Your task to perform on an android device: delete location history Image 0: 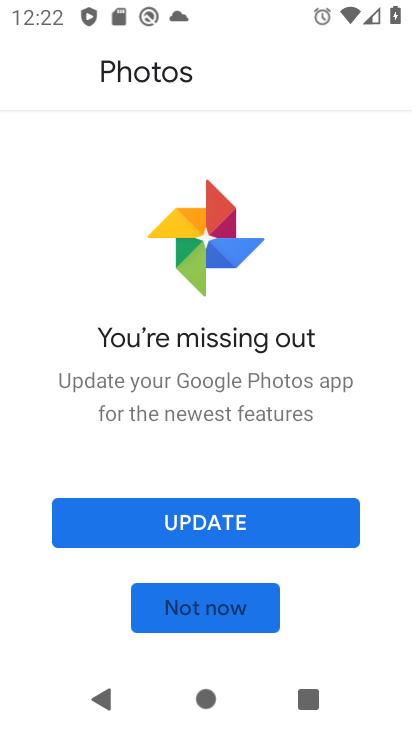
Step 0: press home button
Your task to perform on an android device: delete location history Image 1: 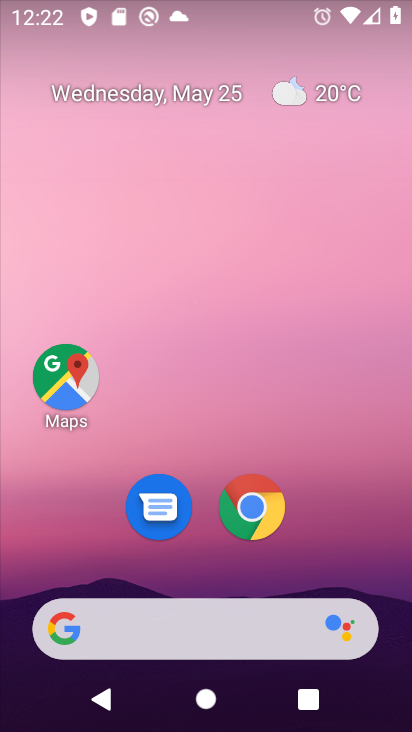
Step 1: drag from (351, 566) to (349, 184)
Your task to perform on an android device: delete location history Image 2: 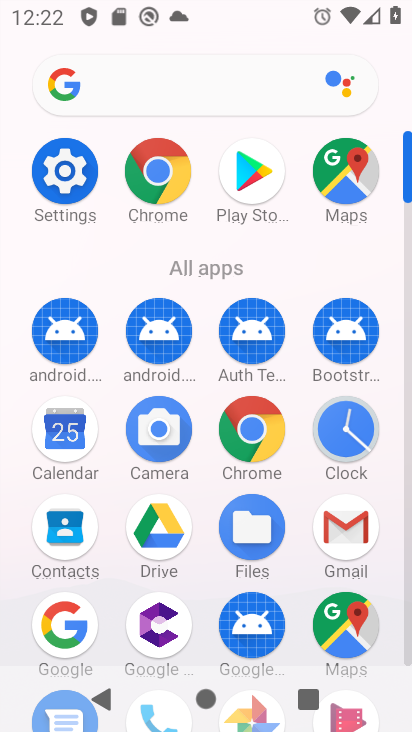
Step 2: click (61, 178)
Your task to perform on an android device: delete location history Image 3: 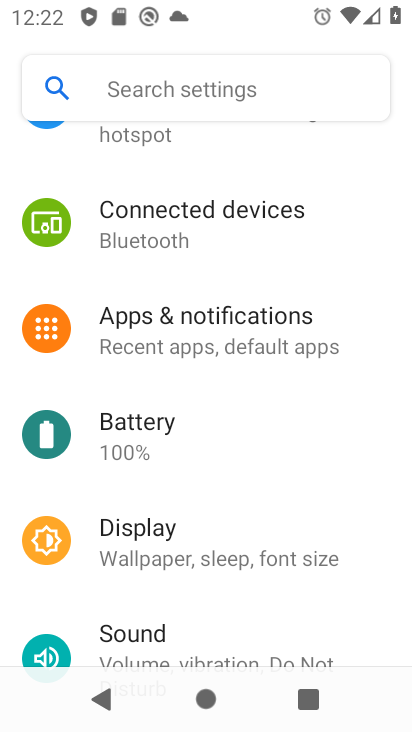
Step 3: drag from (254, 601) to (241, 272)
Your task to perform on an android device: delete location history Image 4: 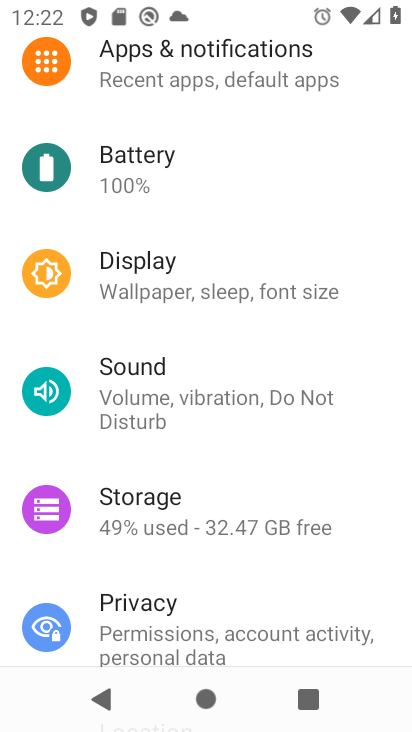
Step 4: drag from (247, 534) to (285, 153)
Your task to perform on an android device: delete location history Image 5: 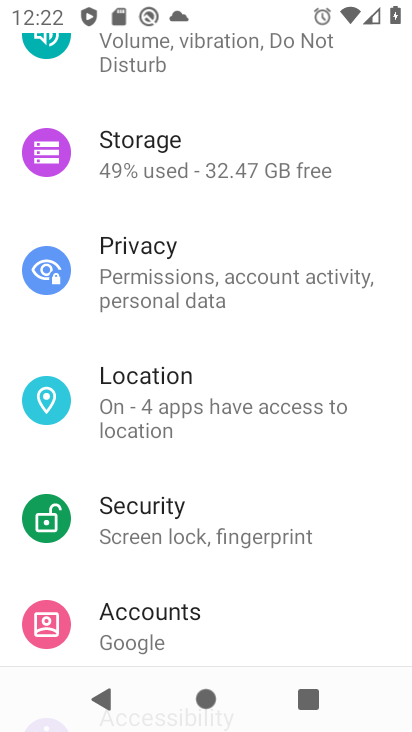
Step 5: click (240, 410)
Your task to perform on an android device: delete location history Image 6: 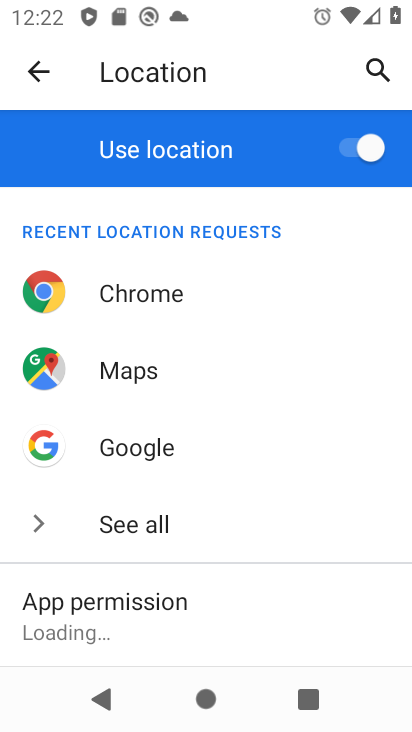
Step 6: drag from (279, 624) to (283, 428)
Your task to perform on an android device: delete location history Image 7: 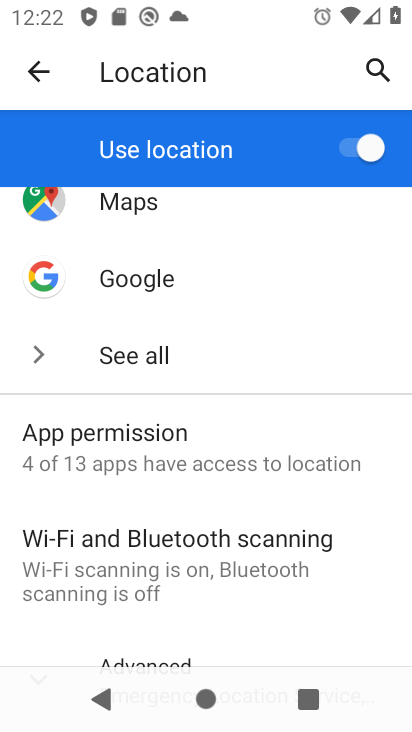
Step 7: drag from (255, 623) to (260, 402)
Your task to perform on an android device: delete location history Image 8: 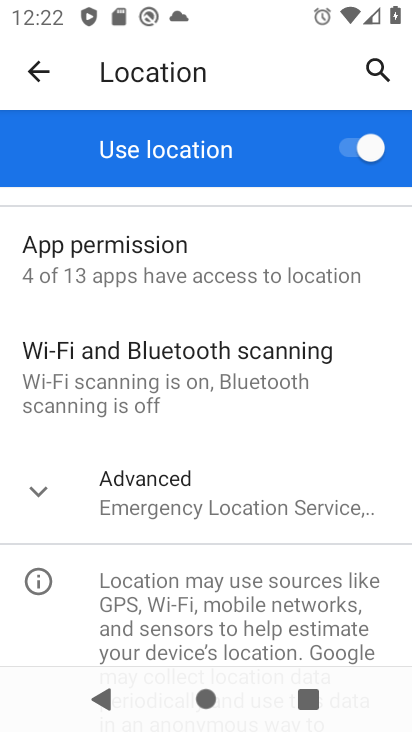
Step 8: drag from (265, 611) to (279, 368)
Your task to perform on an android device: delete location history Image 9: 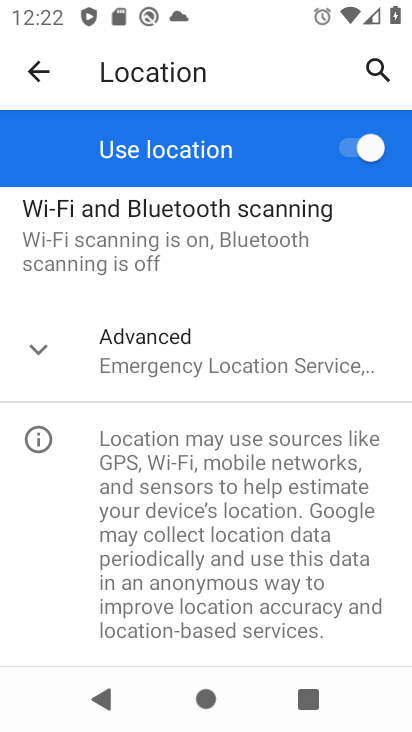
Step 9: click (168, 362)
Your task to perform on an android device: delete location history Image 10: 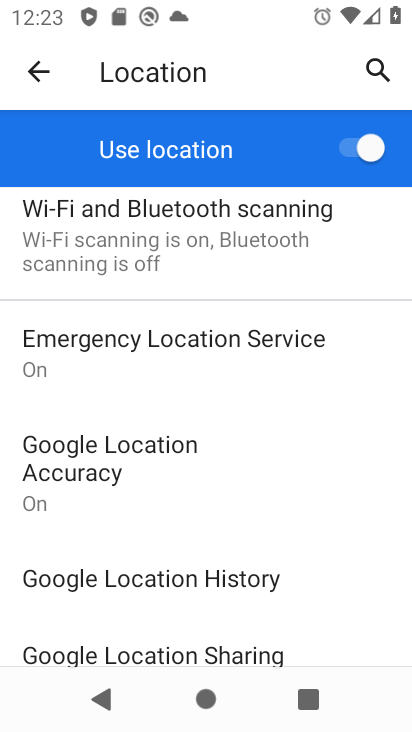
Step 10: click (174, 587)
Your task to perform on an android device: delete location history Image 11: 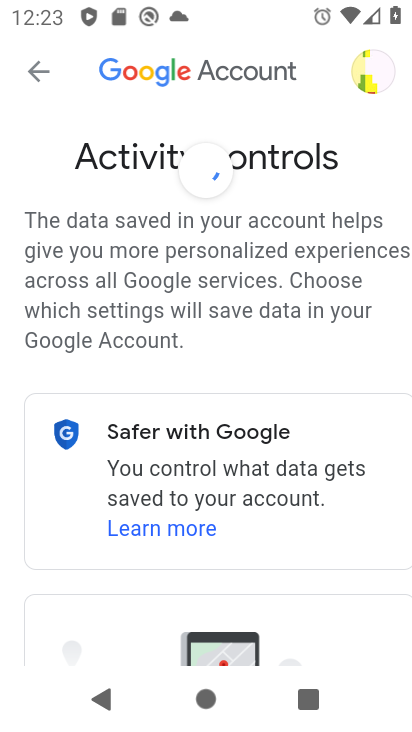
Step 11: drag from (334, 607) to (313, 193)
Your task to perform on an android device: delete location history Image 12: 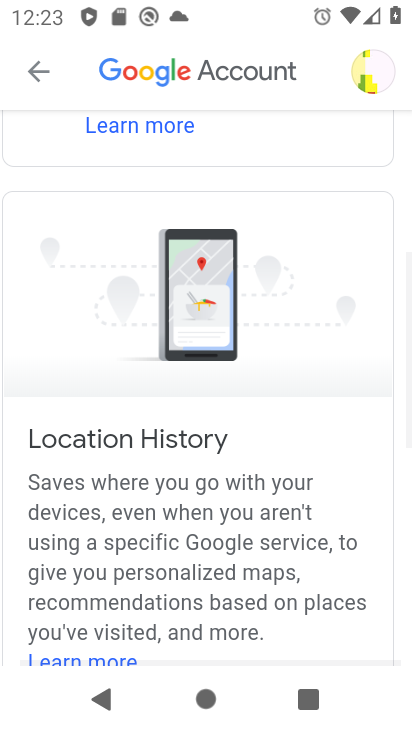
Step 12: drag from (297, 609) to (301, 212)
Your task to perform on an android device: delete location history Image 13: 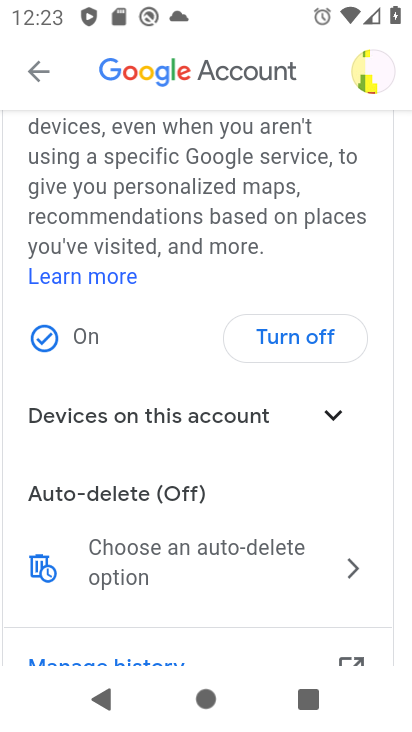
Step 13: drag from (242, 612) to (215, 243)
Your task to perform on an android device: delete location history Image 14: 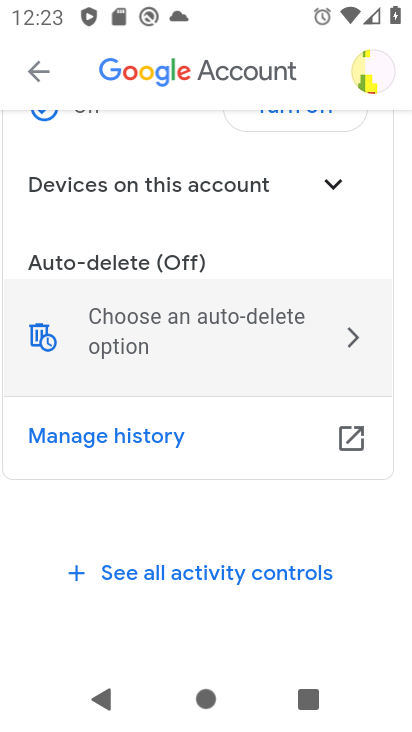
Step 14: click (125, 432)
Your task to perform on an android device: delete location history Image 15: 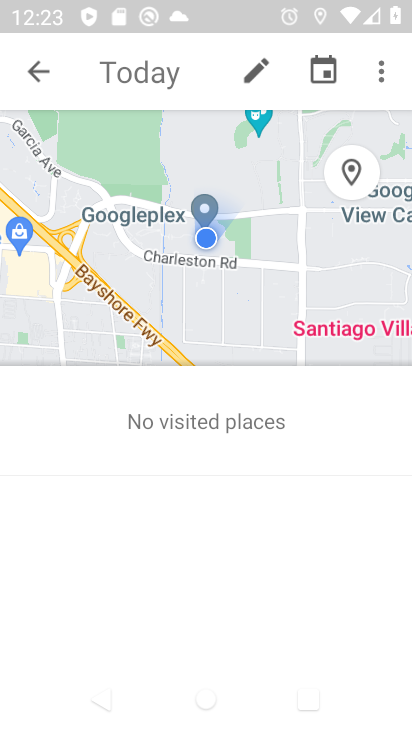
Step 15: click (382, 74)
Your task to perform on an android device: delete location history Image 16: 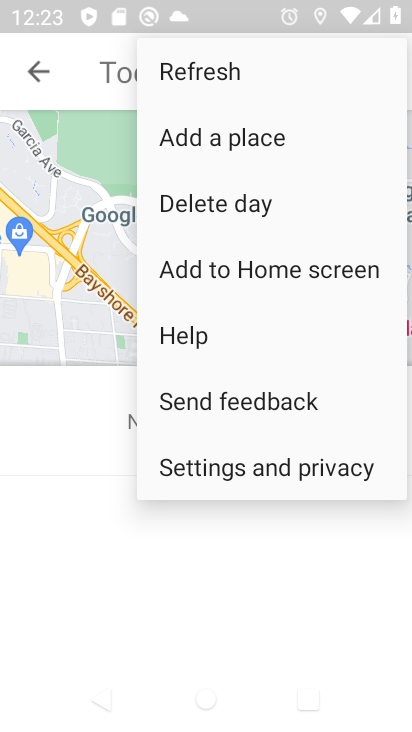
Step 16: click (244, 475)
Your task to perform on an android device: delete location history Image 17: 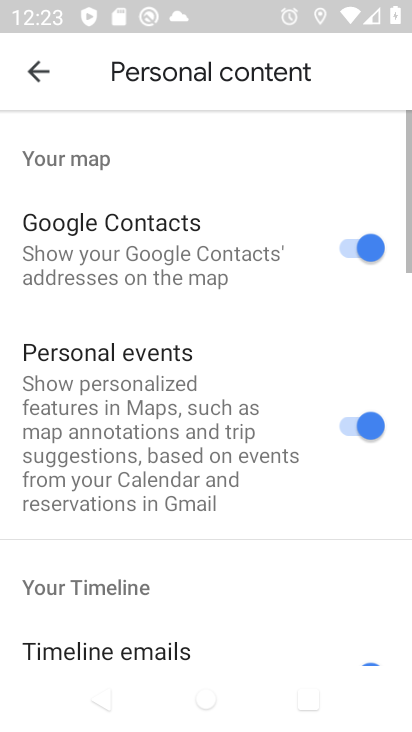
Step 17: drag from (252, 656) to (272, 204)
Your task to perform on an android device: delete location history Image 18: 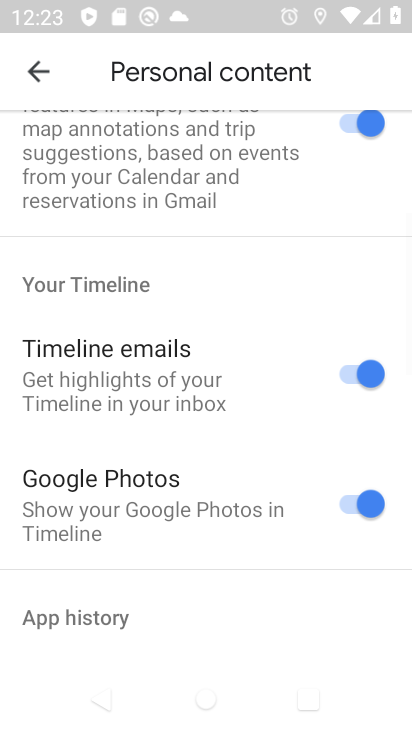
Step 18: drag from (152, 630) to (262, 273)
Your task to perform on an android device: delete location history Image 19: 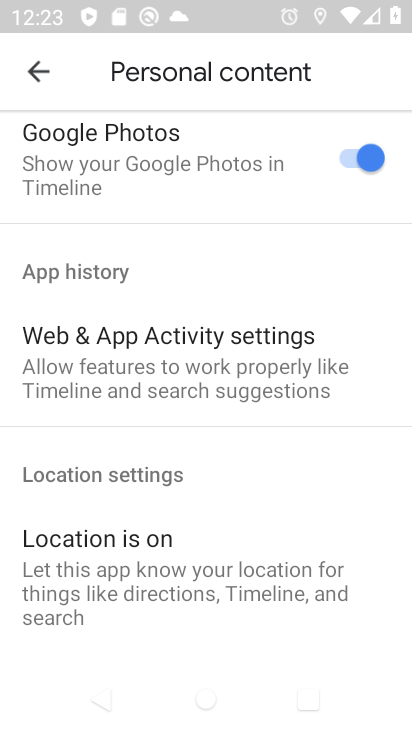
Step 19: drag from (199, 564) to (241, 283)
Your task to perform on an android device: delete location history Image 20: 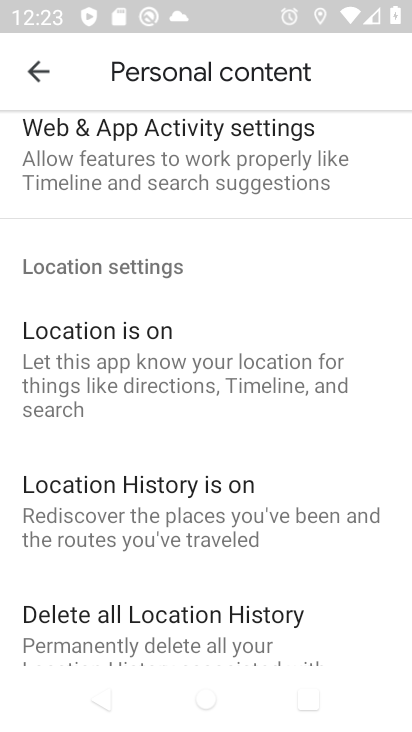
Step 20: drag from (199, 583) to (244, 261)
Your task to perform on an android device: delete location history Image 21: 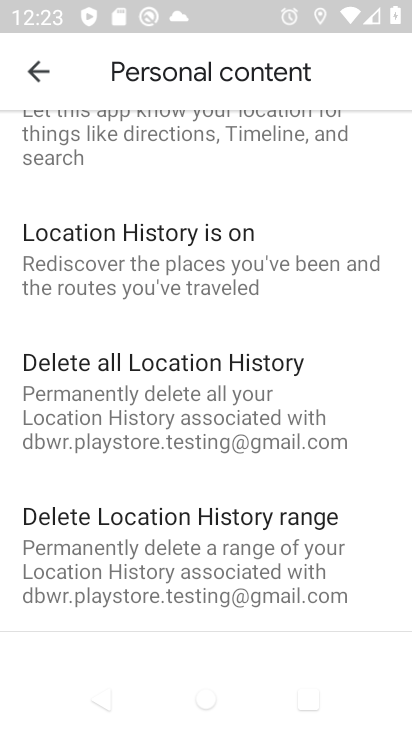
Step 21: click (201, 388)
Your task to perform on an android device: delete location history Image 22: 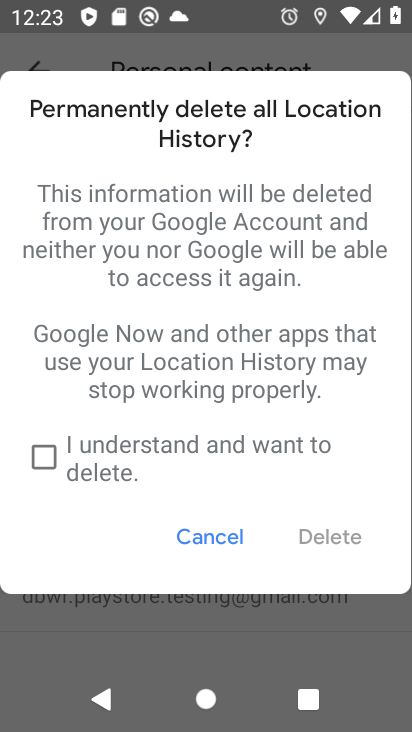
Step 22: click (54, 452)
Your task to perform on an android device: delete location history Image 23: 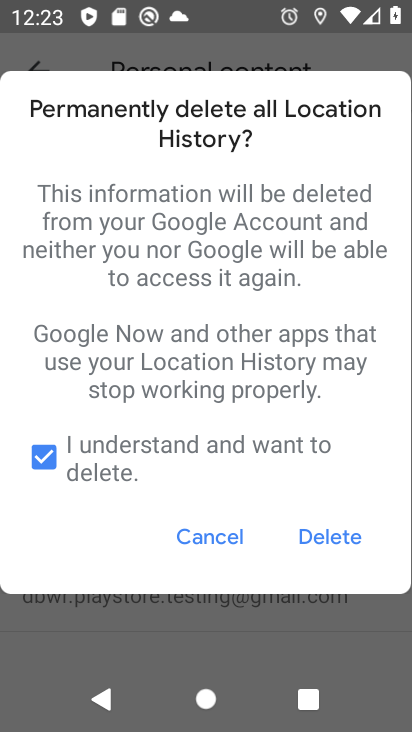
Step 23: click (329, 533)
Your task to perform on an android device: delete location history Image 24: 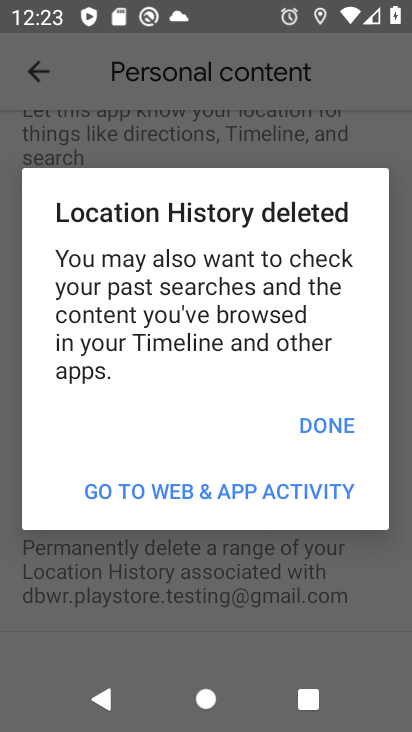
Step 24: click (315, 415)
Your task to perform on an android device: delete location history Image 25: 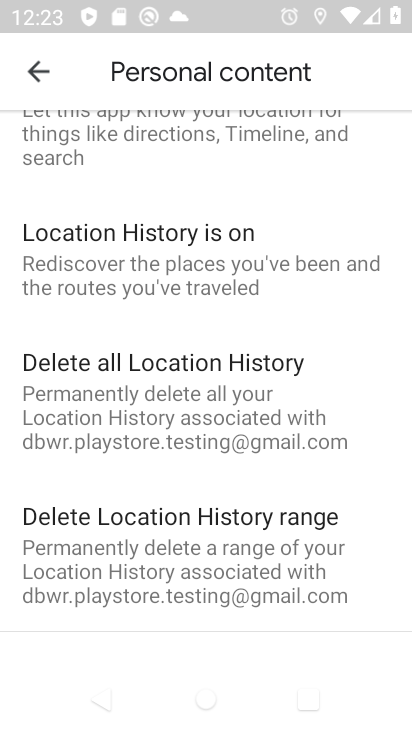
Step 25: task complete